Your task to perform on an android device: check storage Image 0: 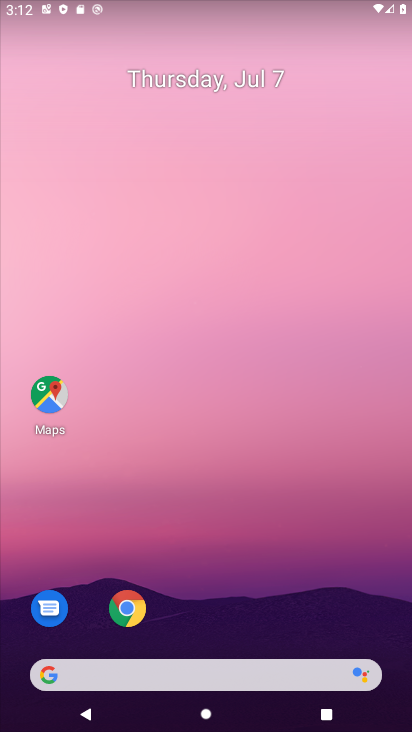
Step 0: drag from (371, 618) to (320, 220)
Your task to perform on an android device: check storage Image 1: 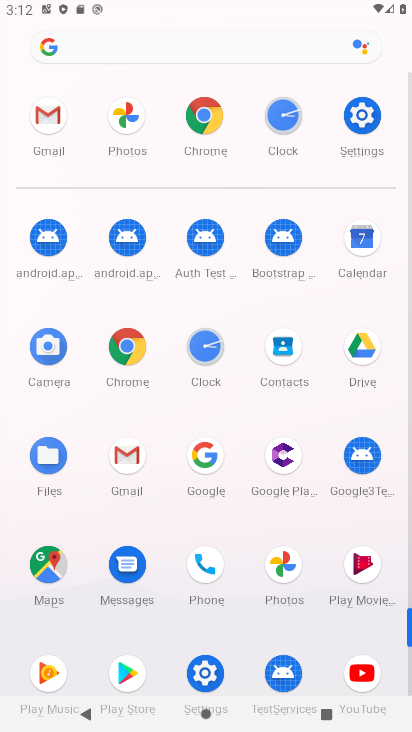
Step 1: click (204, 674)
Your task to perform on an android device: check storage Image 2: 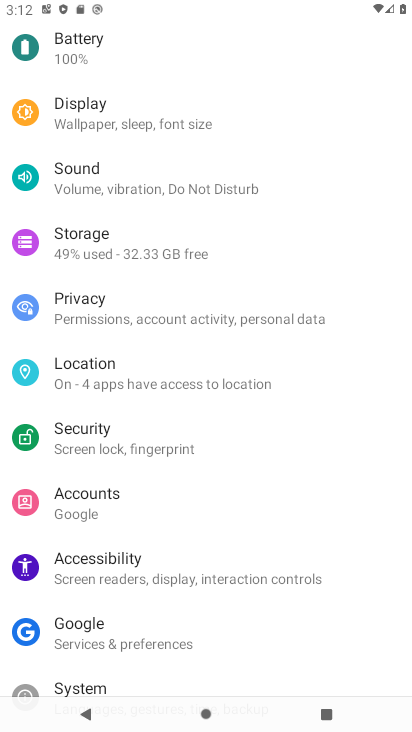
Step 2: click (99, 232)
Your task to perform on an android device: check storage Image 3: 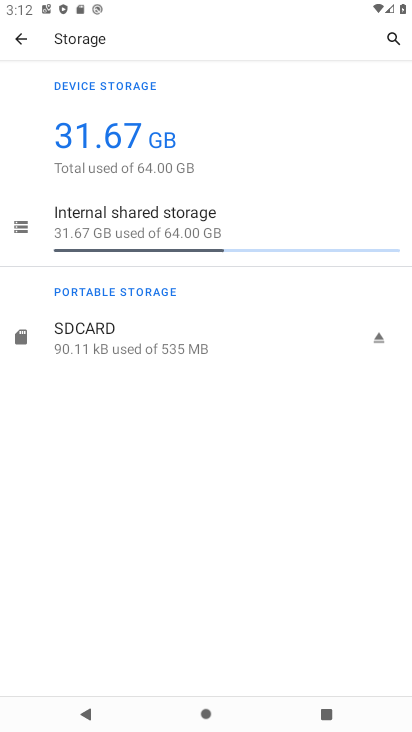
Step 3: task complete